Your task to perform on an android device: refresh tabs in the chrome app Image 0: 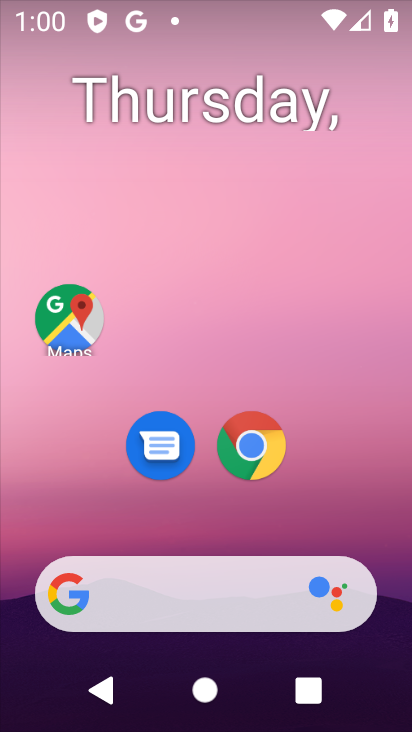
Step 0: click (242, 434)
Your task to perform on an android device: refresh tabs in the chrome app Image 1: 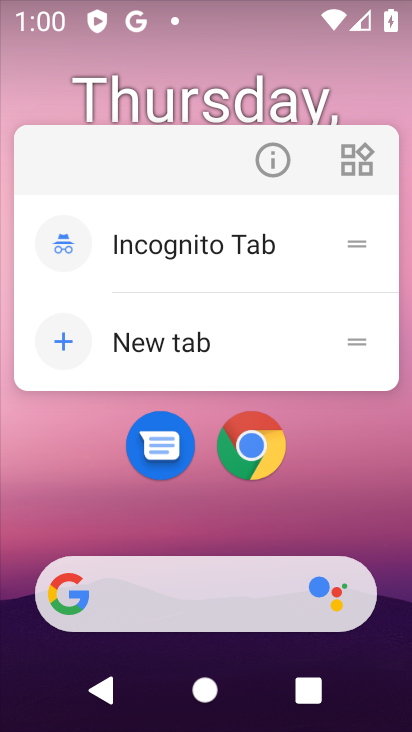
Step 1: click (280, 151)
Your task to perform on an android device: refresh tabs in the chrome app Image 2: 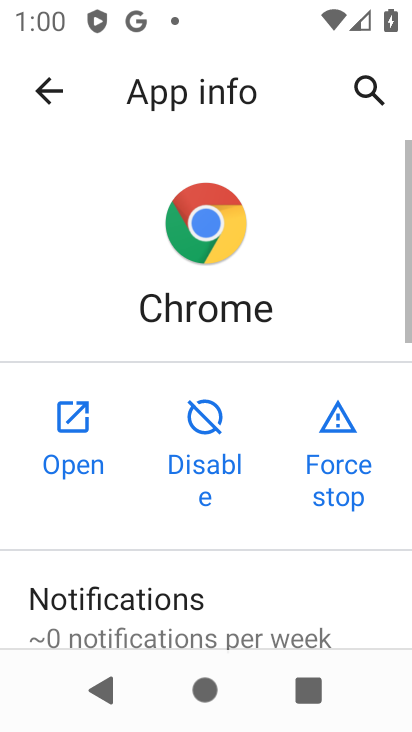
Step 2: click (54, 434)
Your task to perform on an android device: refresh tabs in the chrome app Image 3: 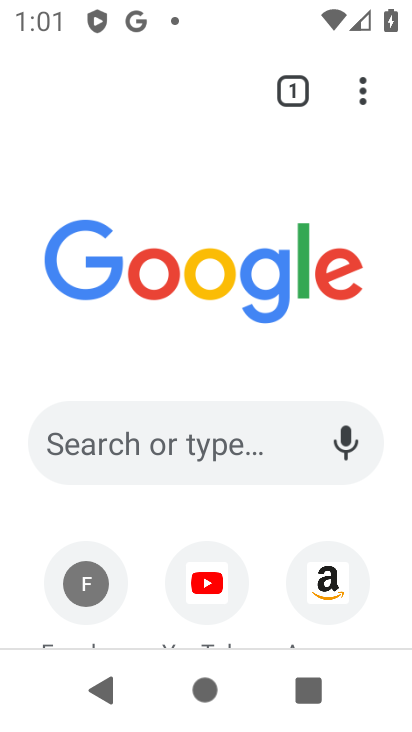
Step 3: click (360, 100)
Your task to perform on an android device: refresh tabs in the chrome app Image 4: 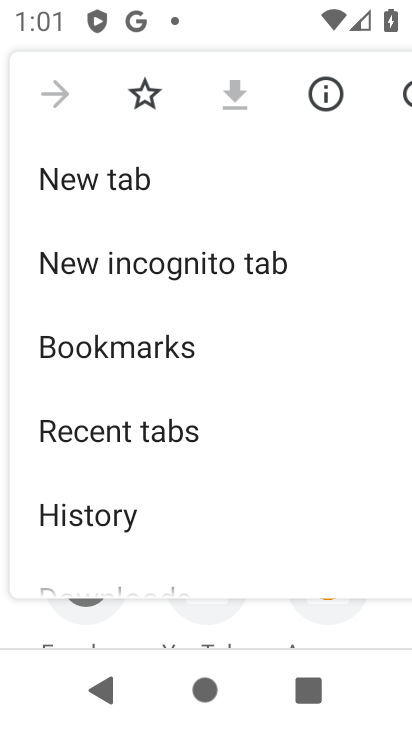
Step 4: click (395, 89)
Your task to perform on an android device: refresh tabs in the chrome app Image 5: 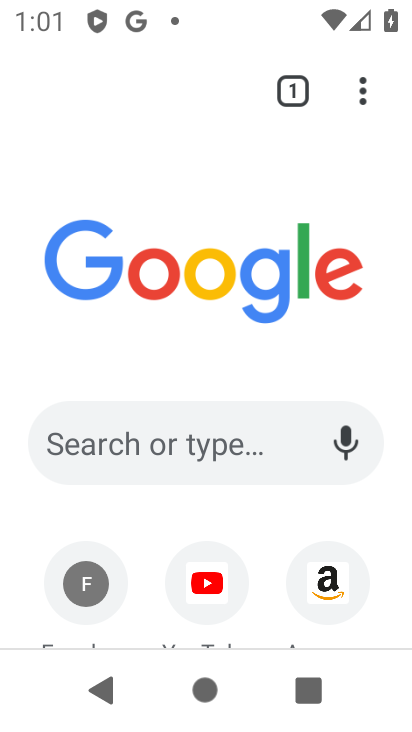
Step 5: task complete